Your task to perform on an android device: Toggle the flashlight Image 0: 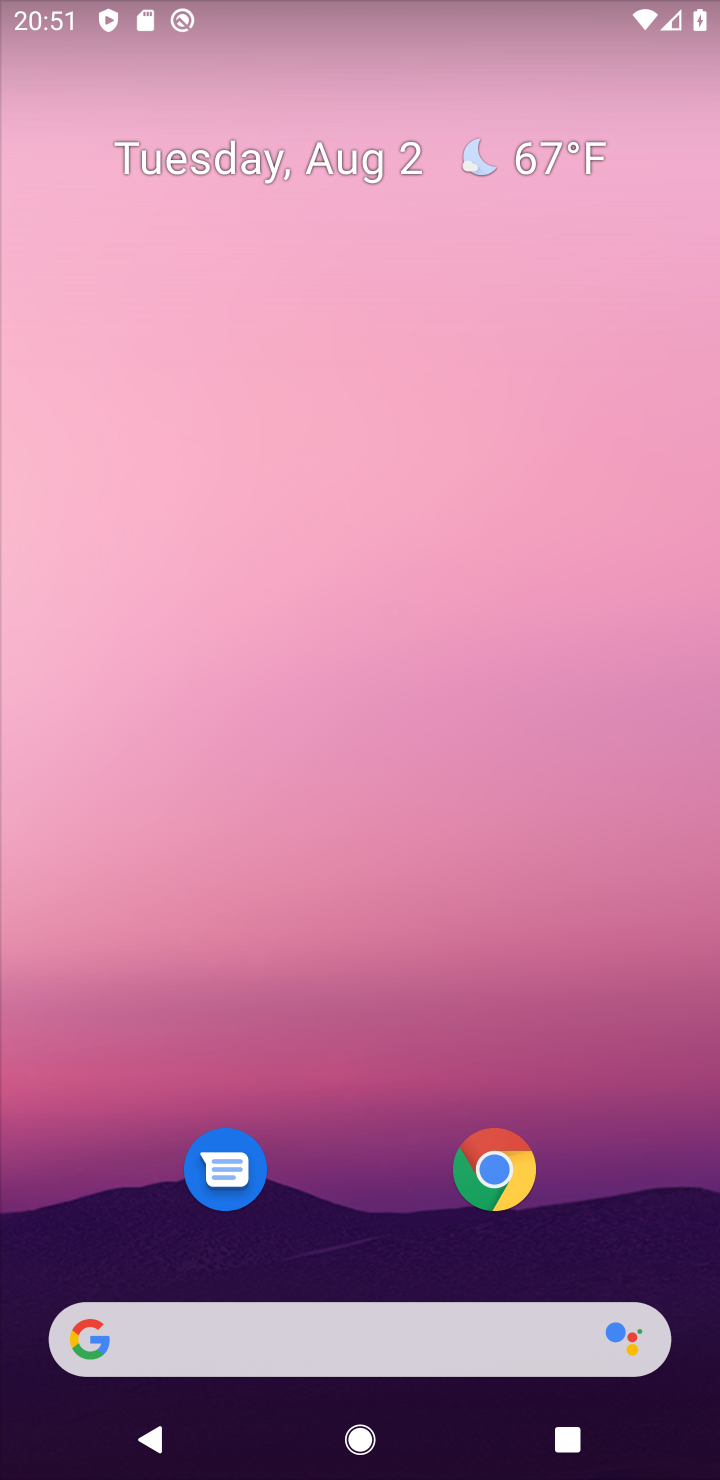
Step 0: drag from (349, 1072) to (315, 121)
Your task to perform on an android device: Toggle the flashlight Image 1: 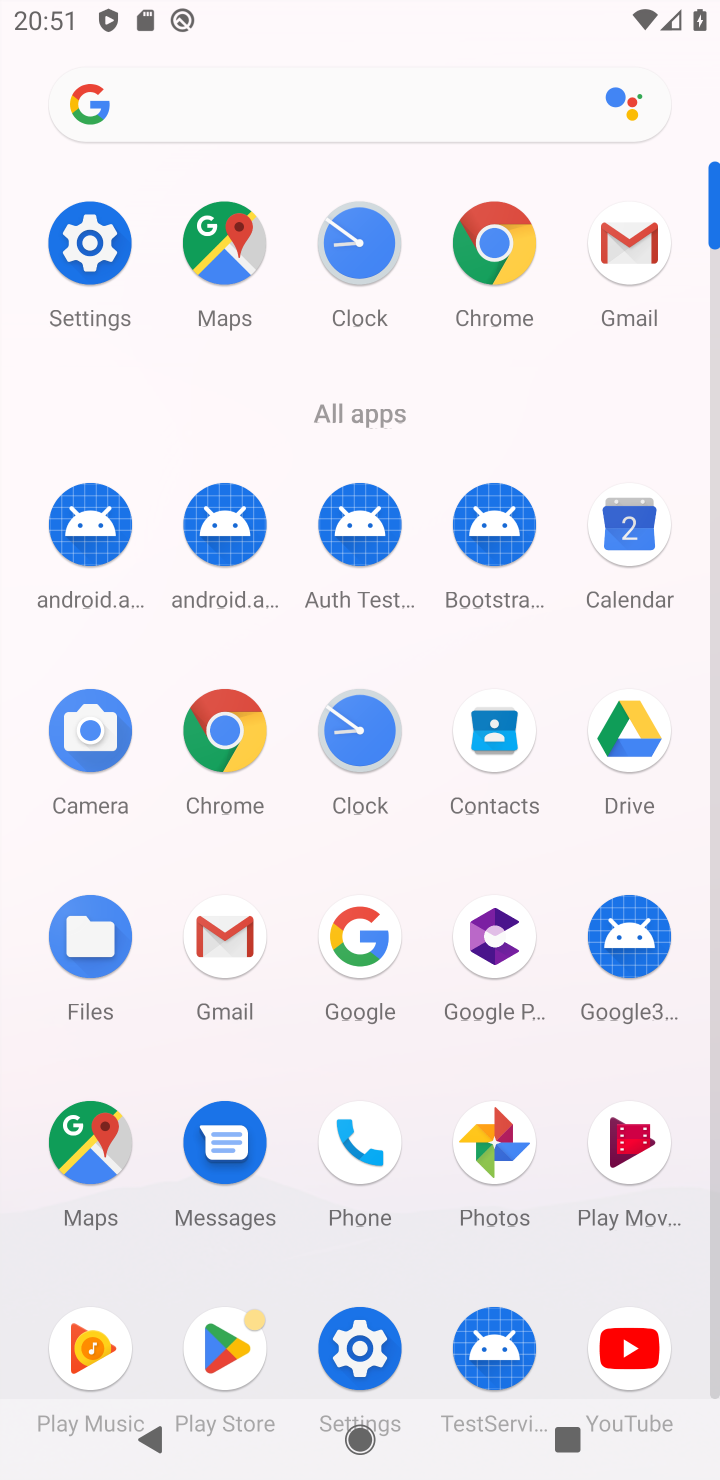
Step 1: click (74, 238)
Your task to perform on an android device: Toggle the flashlight Image 2: 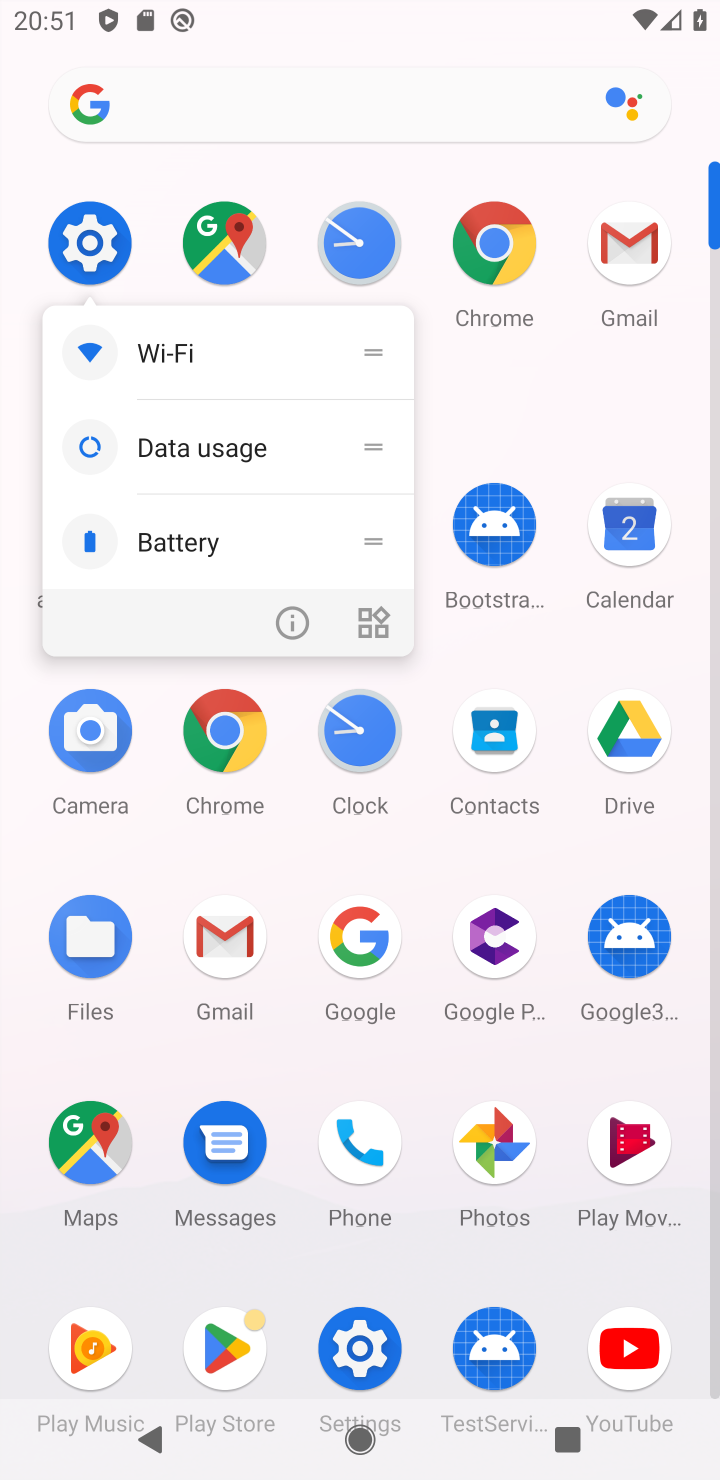
Step 2: click (89, 237)
Your task to perform on an android device: Toggle the flashlight Image 3: 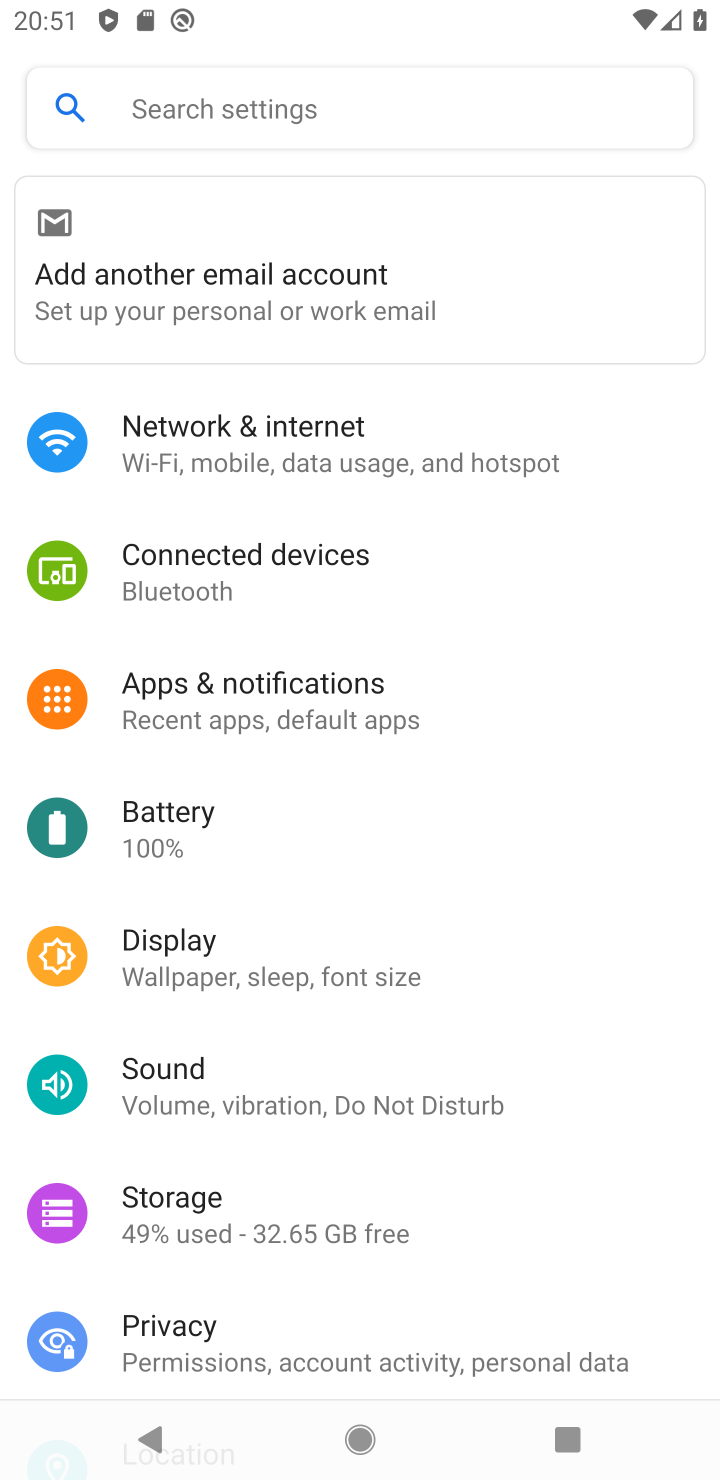
Step 3: click (307, 438)
Your task to perform on an android device: Toggle the flashlight Image 4: 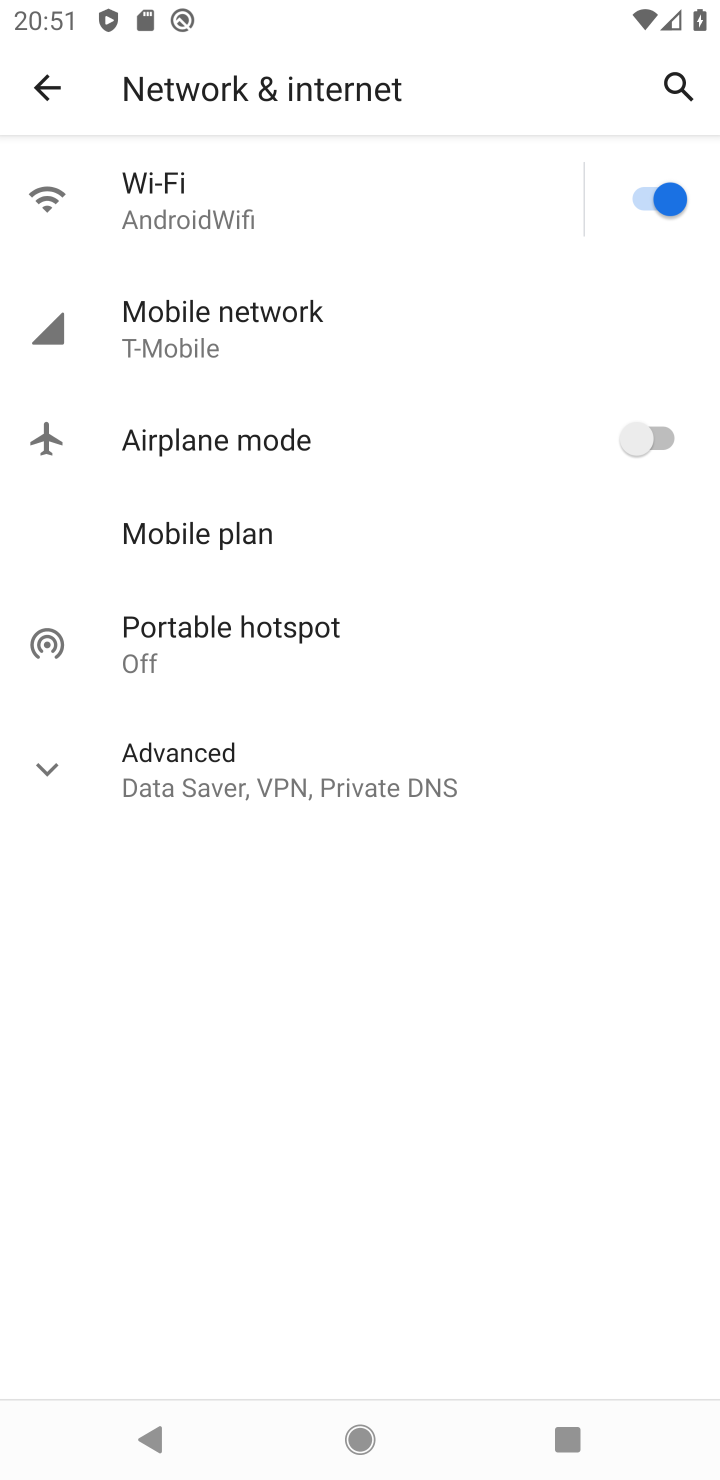
Step 4: click (39, 79)
Your task to perform on an android device: Toggle the flashlight Image 5: 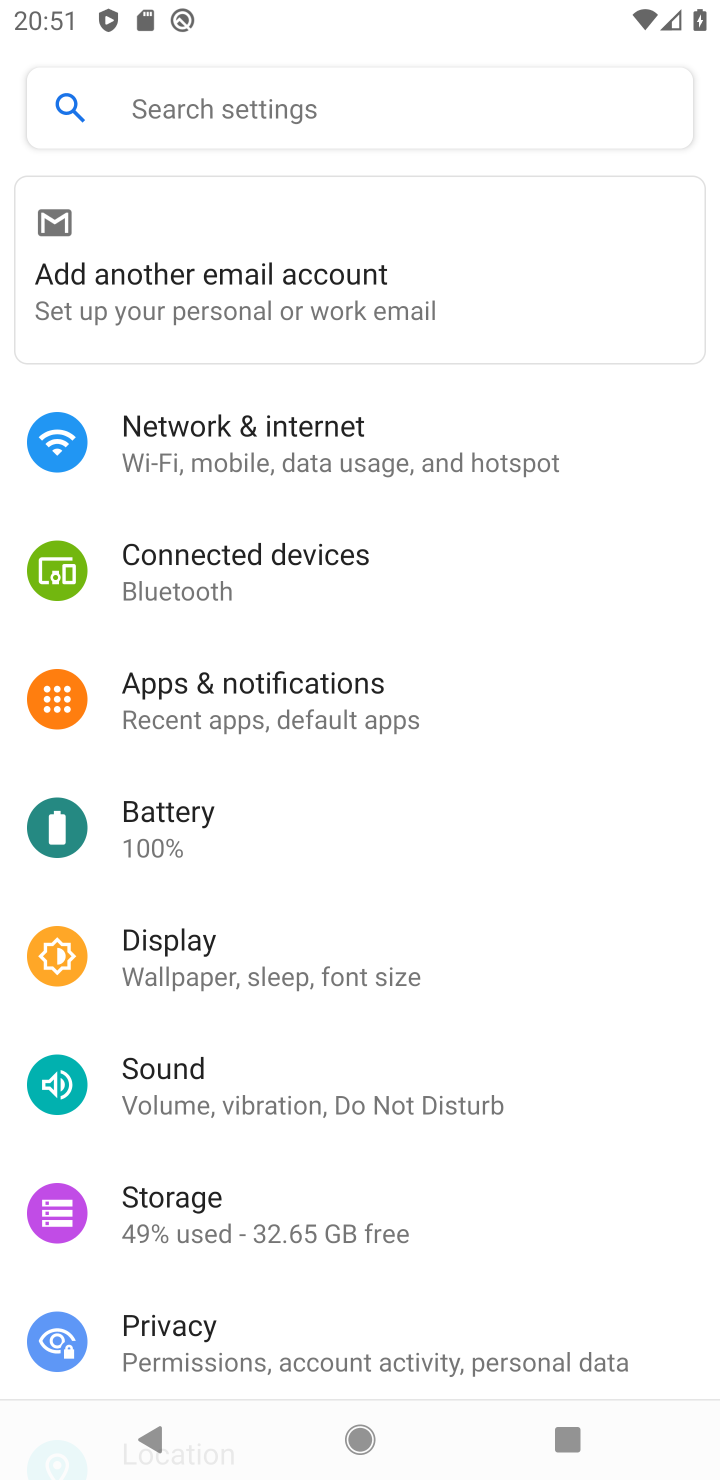
Step 5: task complete